Your task to perform on an android device: View the shopping cart on amazon.com. Add jbl flip 4 to the cart on amazon.com Image 0: 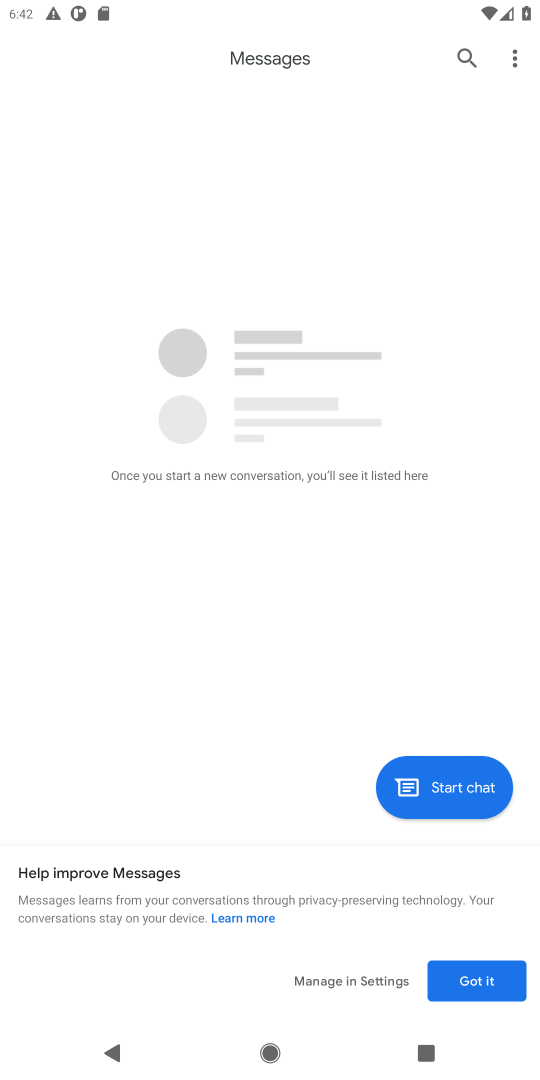
Step 0: press home button
Your task to perform on an android device: View the shopping cart on amazon.com. Add jbl flip 4 to the cart on amazon.com Image 1: 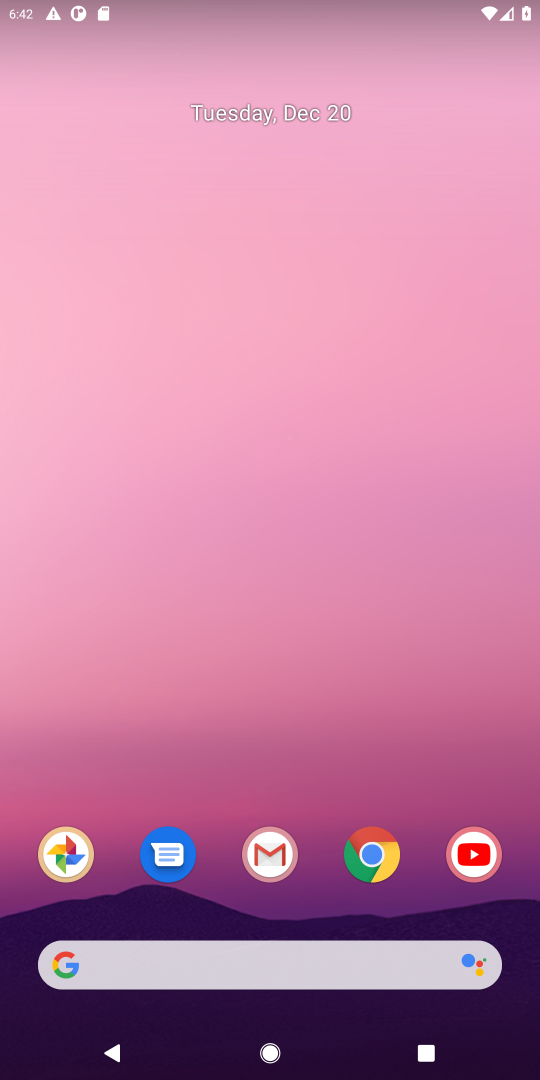
Step 1: click (370, 858)
Your task to perform on an android device: View the shopping cart on amazon.com. Add jbl flip 4 to the cart on amazon.com Image 2: 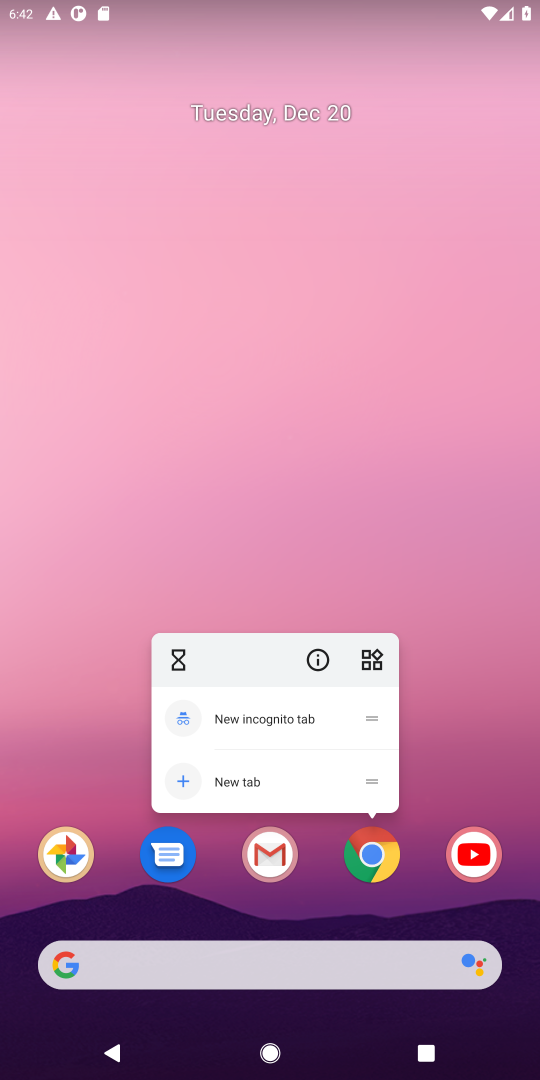
Step 2: click (370, 858)
Your task to perform on an android device: View the shopping cart on amazon.com. Add jbl flip 4 to the cart on amazon.com Image 3: 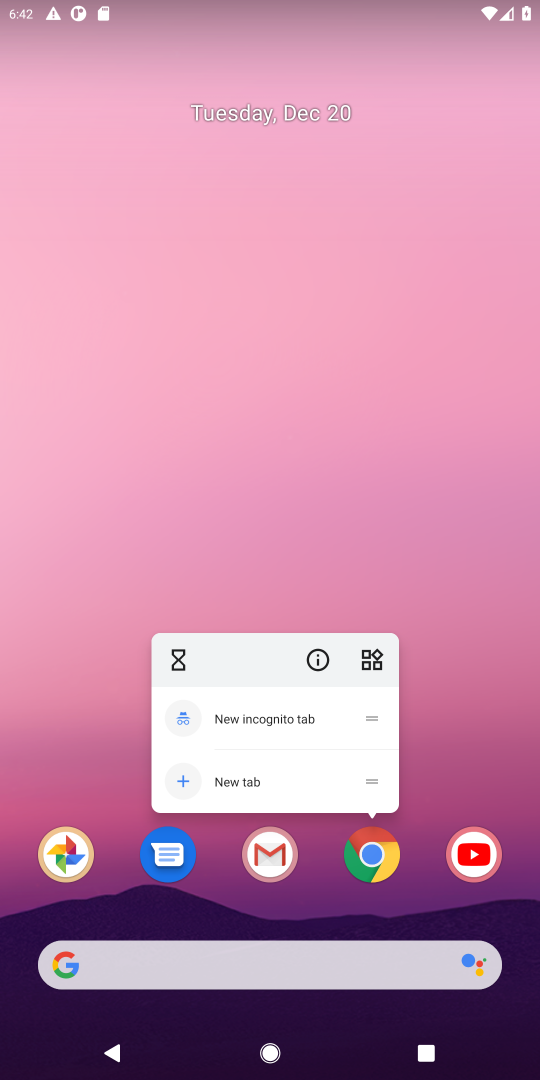
Step 3: click (370, 858)
Your task to perform on an android device: View the shopping cart on amazon.com. Add jbl flip 4 to the cart on amazon.com Image 4: 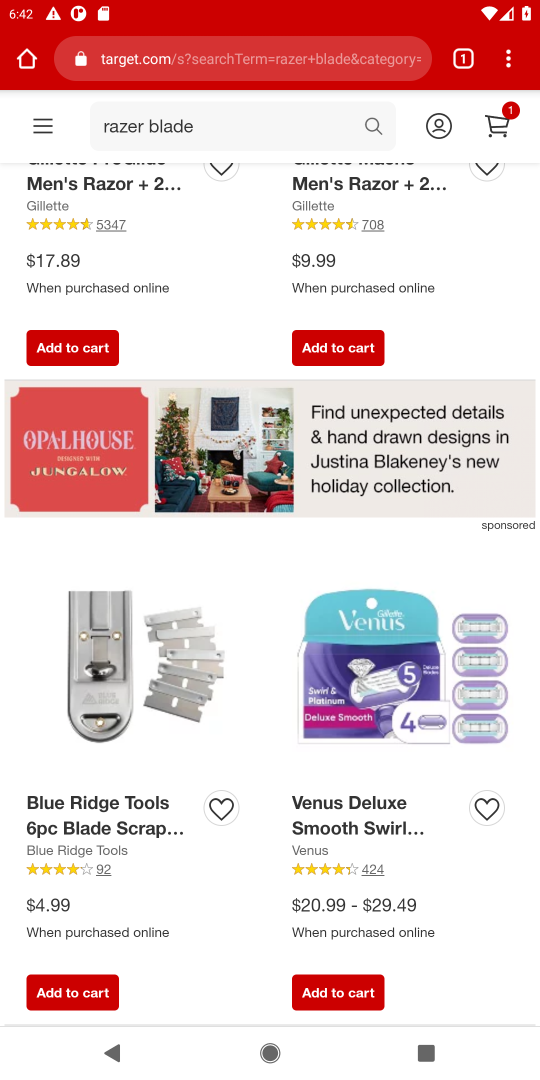
Step 4: click (157, 62)
Your task to perform on an android device: View the shopping cart on amazon.com. Add jbl flip 4 to the cart on amazon.com Image 5: 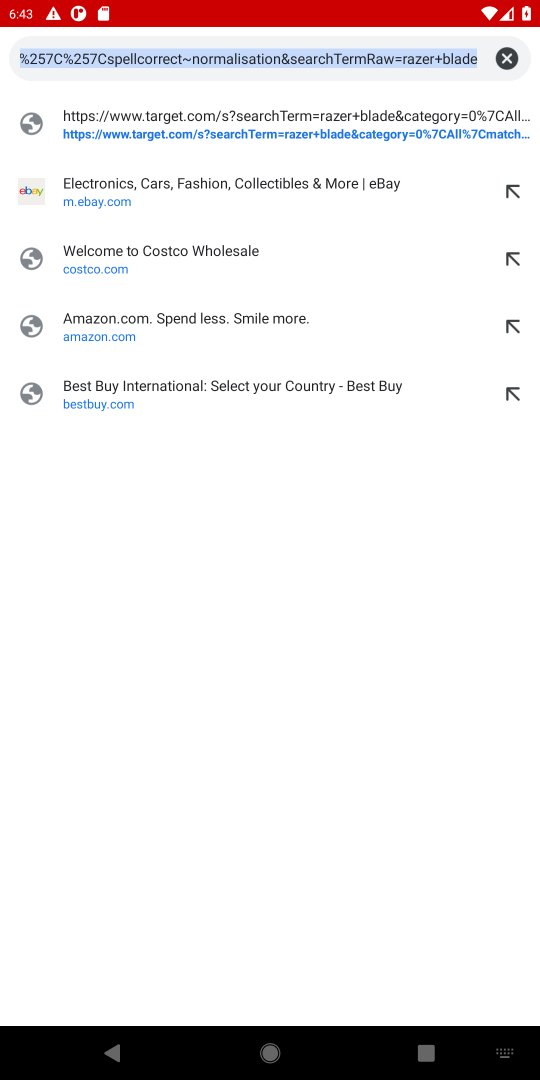
Step 5: click (100, 333)
Your task to perform on an android device: View the shopping cart on amazon.com. Add jbl flip 4 to the cart on amazon.com Image 6: 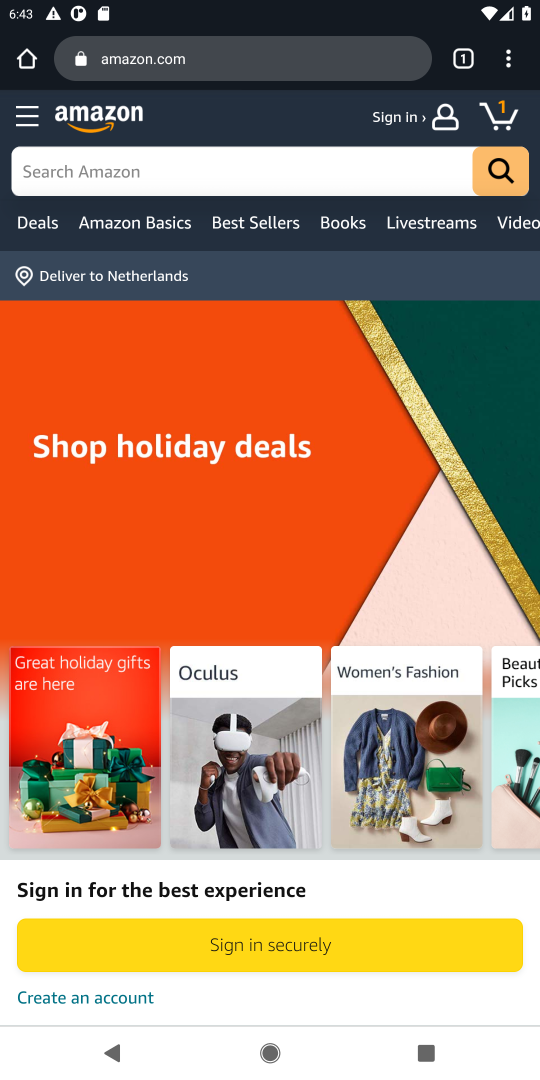
Step 6: click (496, 117)
Your task to perform on an android device: View the shopping cart on amazon.com. Add jbl flip 4 to the cart on amazon.com Image 7: 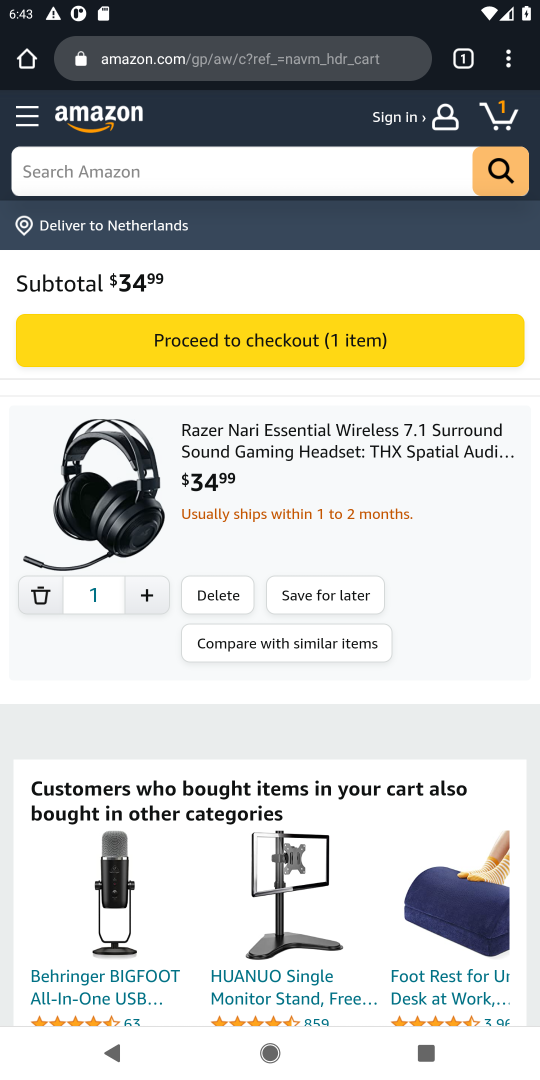
Step 7: click (99, 176)
Your task to perform on an android device: View the shopping cart on amazon.com. Add jbl flip 4 to the cart on amazon.com Image 8: 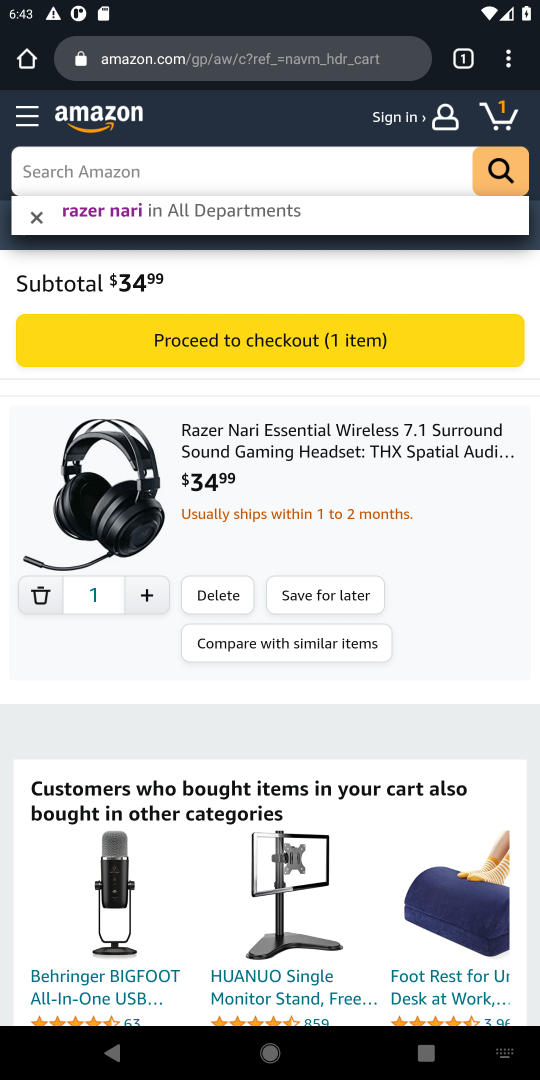
Step 8: type " jbl flip 4 "
Your task to perform on an android device: View the shopping cart on amazon.com. Add jbl flip 4 to the cart on amazon.com Image 9: 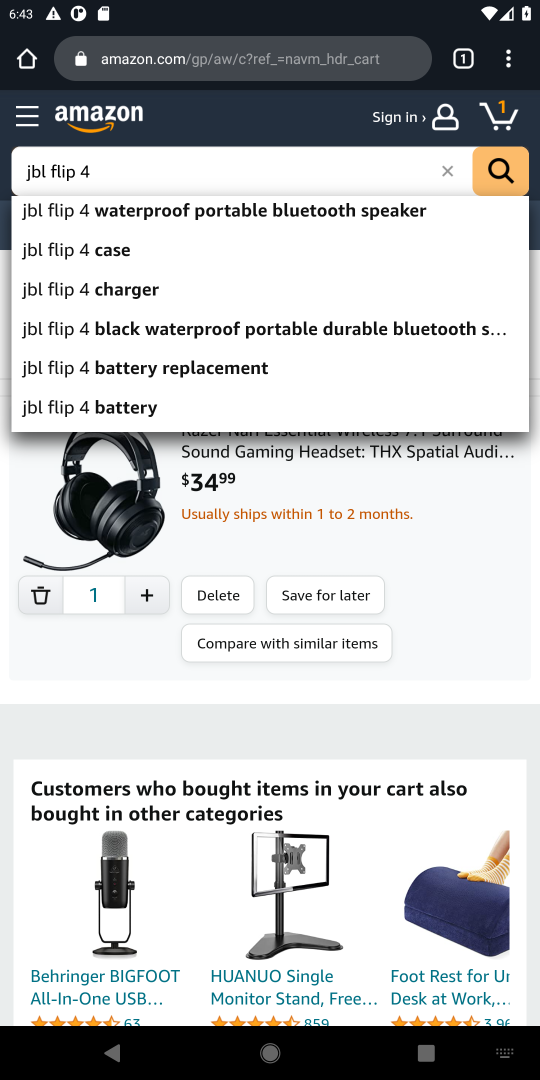
Step 9: click (508, 178)
Your task to perform on an android device: View the shopping cart on amazon.com. Add jbl flip 4 to the cart on amazon.com Image 10: 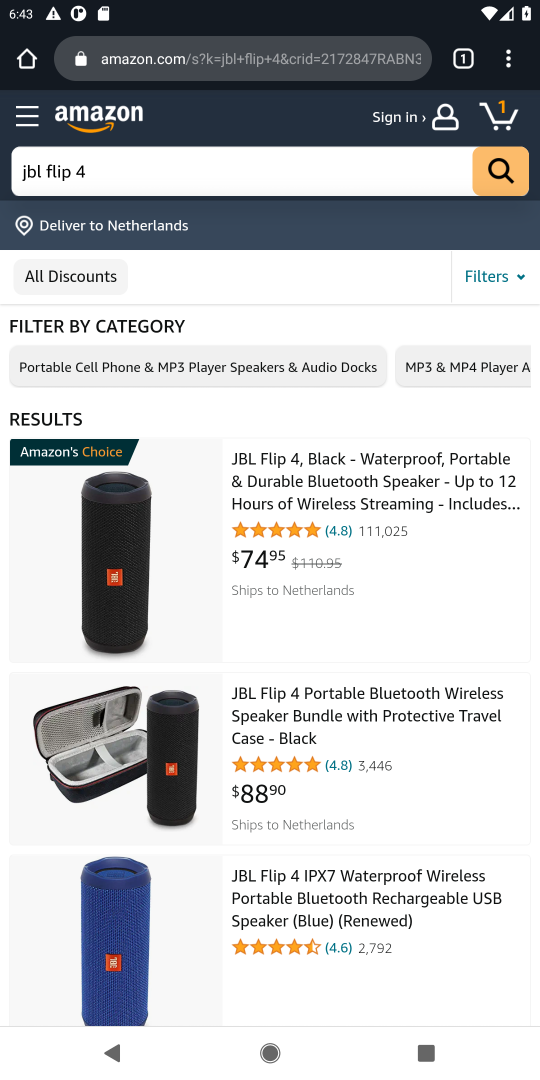
Step 10: click (290, 503)
Your task to perform on an android device: View the shopping cart on amazon.com. Add jbl flip 4 to the cart on amazon.com Image 11: 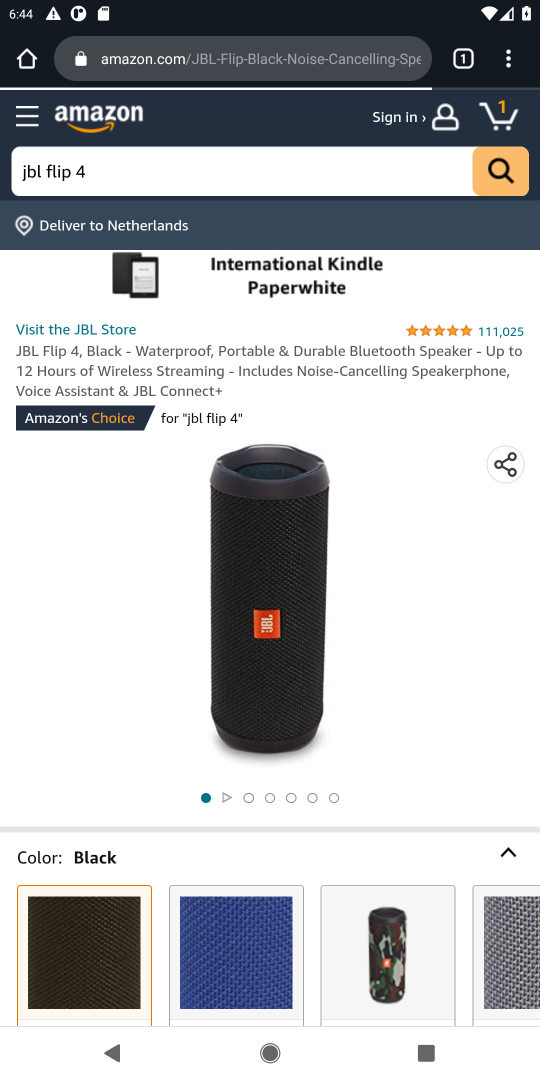
Step 11: drag from (240, 776) to (255, 408)
Your task to perform on an android device: View the shopping cart on amazon.com. Add jbl flip 4 to the cart on amazon.com Image 12: 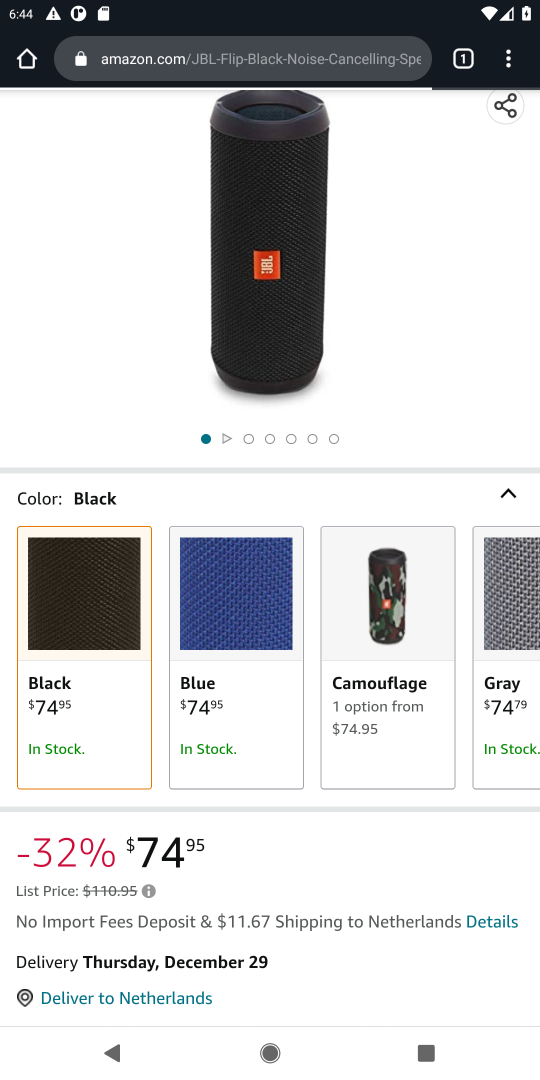
Step 12: drag from (270, 810) to (278, 323)
Your task to perform on an android device: View the shopping cart on amazon.com. Add jbl flip 4 to the cart on amazon.com Image 13: 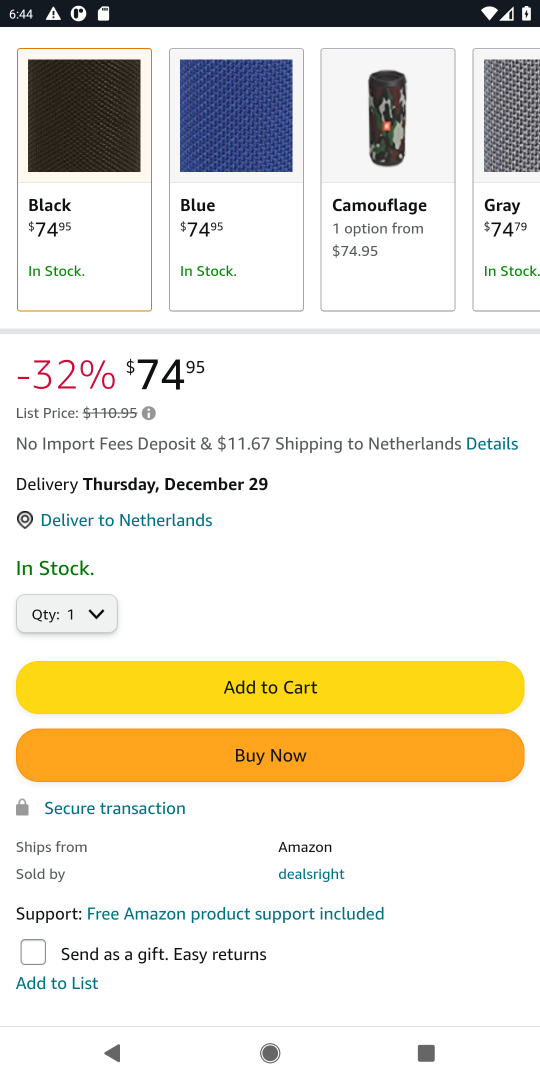
Step 13: click (233, 695)
Your task to perform on an android device: View the shopping cart on amazon.com. Add jbl flip 4 to the cart on amazon.com Image 14: 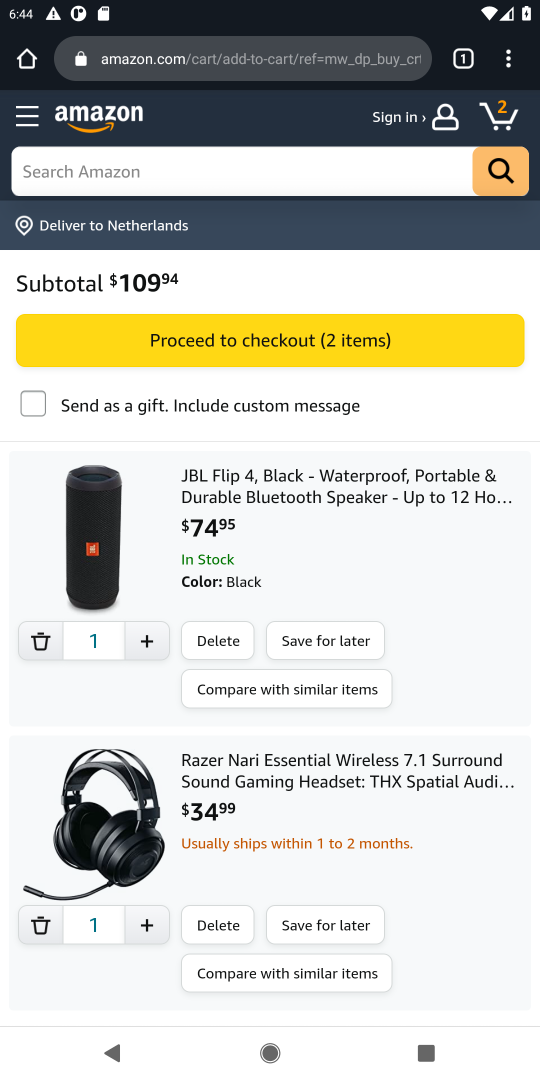
Step 14: task complete